Your task to perform on an android device: visit the assistant section in the google photos Image 0: 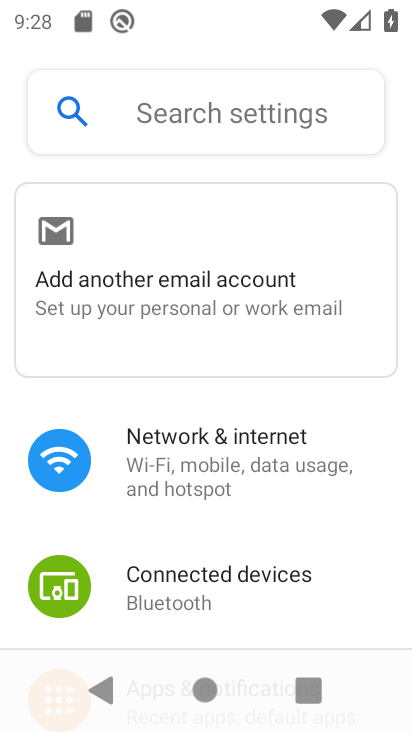
Step 0: press home button
Your task to perform on an android device: visit the assistant section in the google photos Image 1: 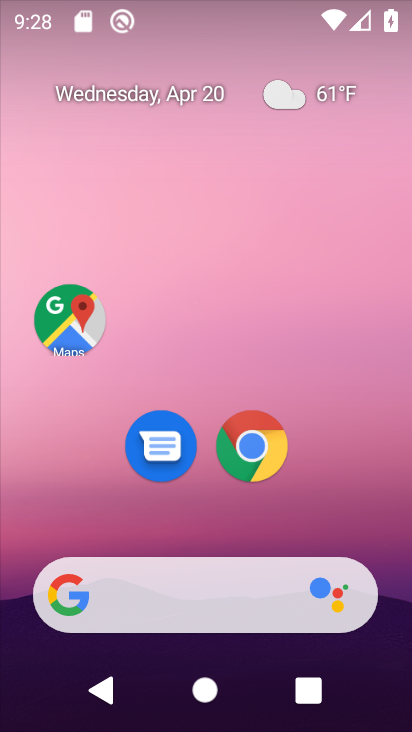
Step 1: drag from (360, 497) to (360, 174)
Your task to perform on an android device: visit the assistant section in the google photos Image 2: 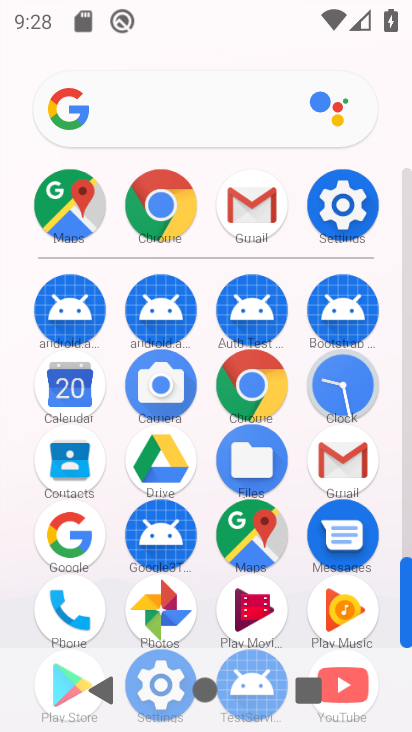
Step 2: drag from (386, 532) to (390, 294)
Your task to perform on an android device: visit the assistant section in the google photos Image 3: 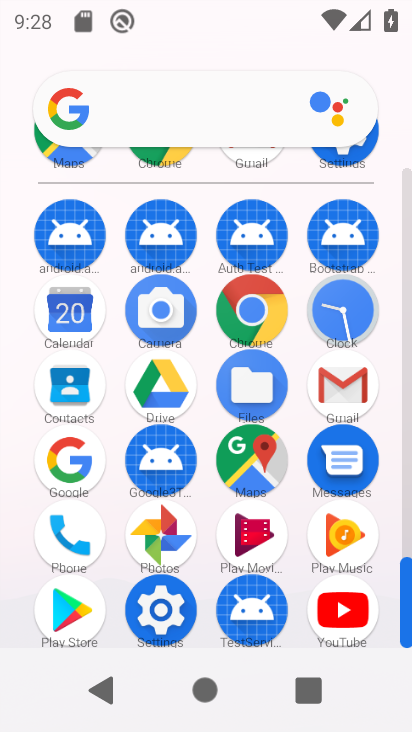
Step 3: click (178, 533)
Your task to perform on an android device: visit the assistant section in the google photos Image 4: 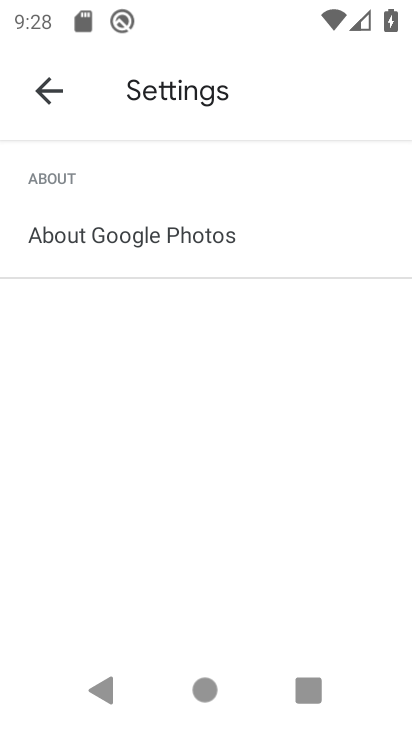
Step 4: click (46, 105)
Your task to perform on an android device: visit the assistant section in the google photos Image 5: 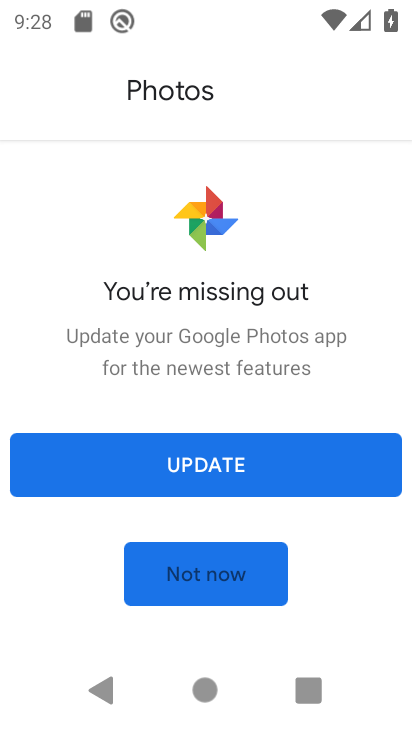
Step 5: click (281, 458)
Your task to perform on an android device: visit the assistant section in the google photos Image 6: 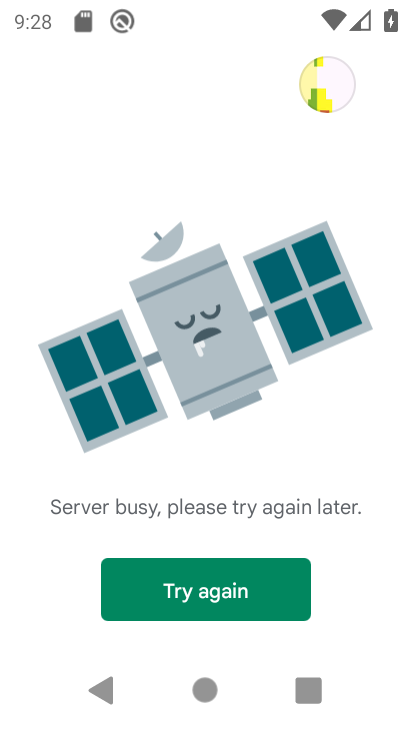
Step 6: task complete